Your task to perform on an android device: turn pop-ups on in chrome Image 0: 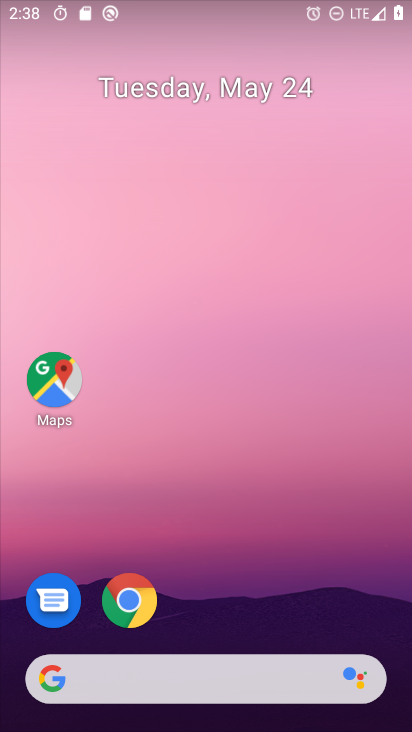
Step 0: click (133, 600)
Your task to perform on an android device: turn pop-ups on in chrome Image 1: 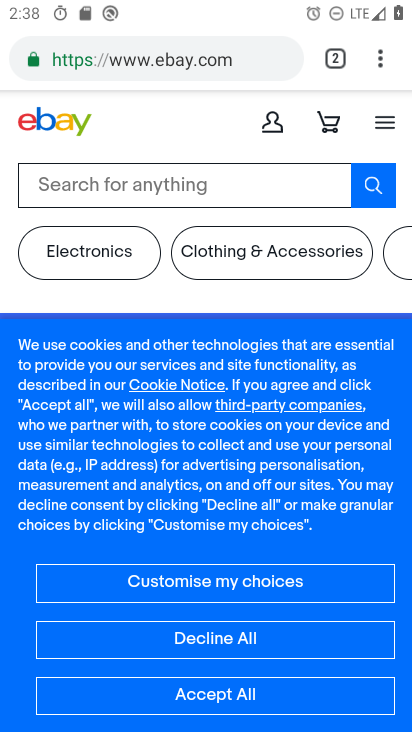
Step 1: click (378, 49)
Your task to perform on an android device: turn pop-ups on in chrome Image 2: 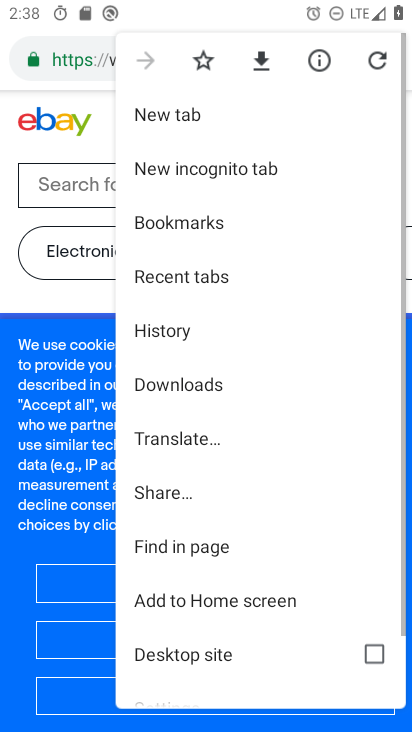
Step 2: drag from (210, 525) to (288, 199)
Your task to perform on an android device: turn pop-ups on in chrome Image 3: 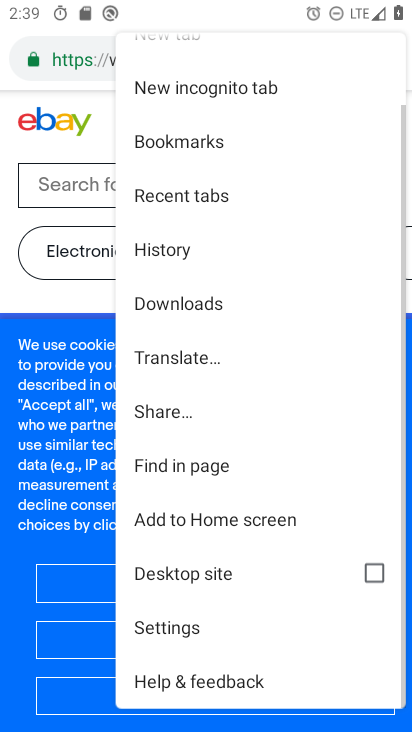
Step 3: click (162, 625)
Your task to perform on an android device: turn pop-ups on in chrome Image 4: 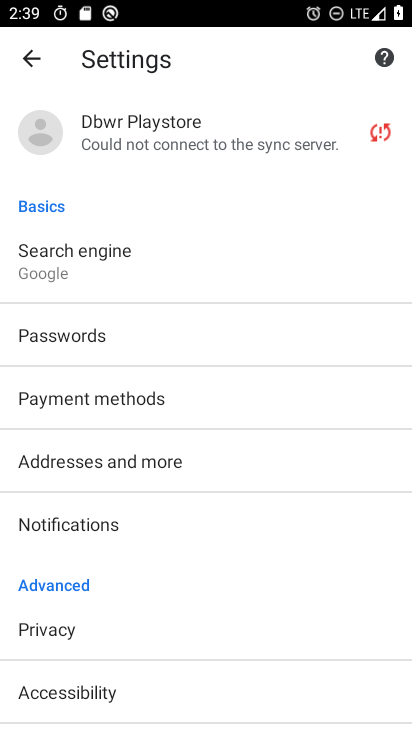
Step 4: drag from (205, 640) to (306, 211)
Your task to perform on an android device: turn pop-ups on in chrome Image 5: 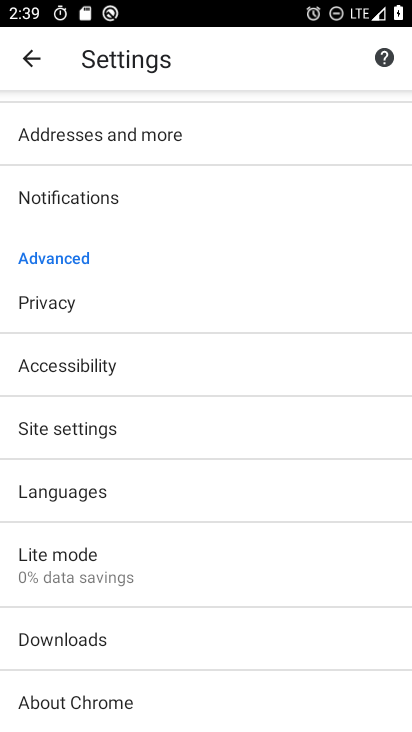
Step 5: click (119, 422)
Your task to perform on an android device: turn pop-ups on in chrome Image 6: 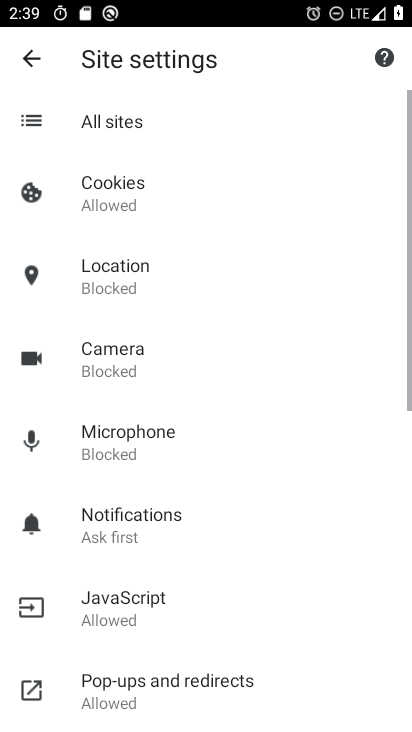
Step 6: drag from (226, 555) to (251, 270)
Your task to perform on an android device: turn pop-ups on in chrome Image 7: 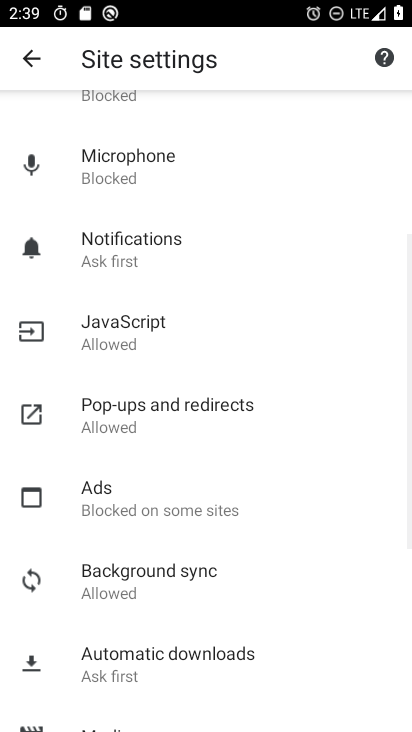
Step 7: click (148, 418)
Your task to perform on an android device: turn pop-ups on in chrome Image 8: 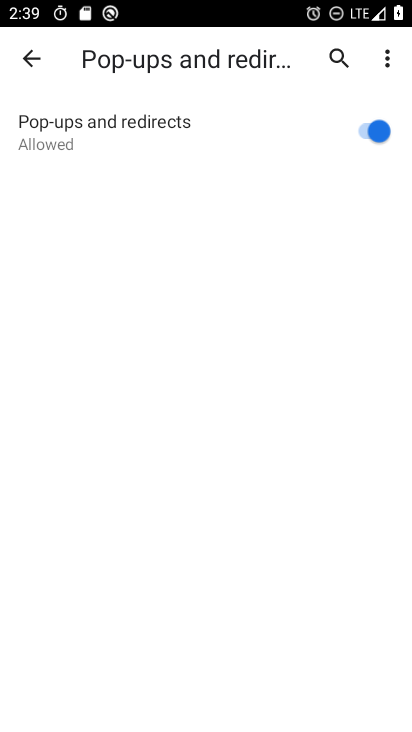
Step 8: task complete